Your task to perform on an android device: Go to Amazon Image 0: 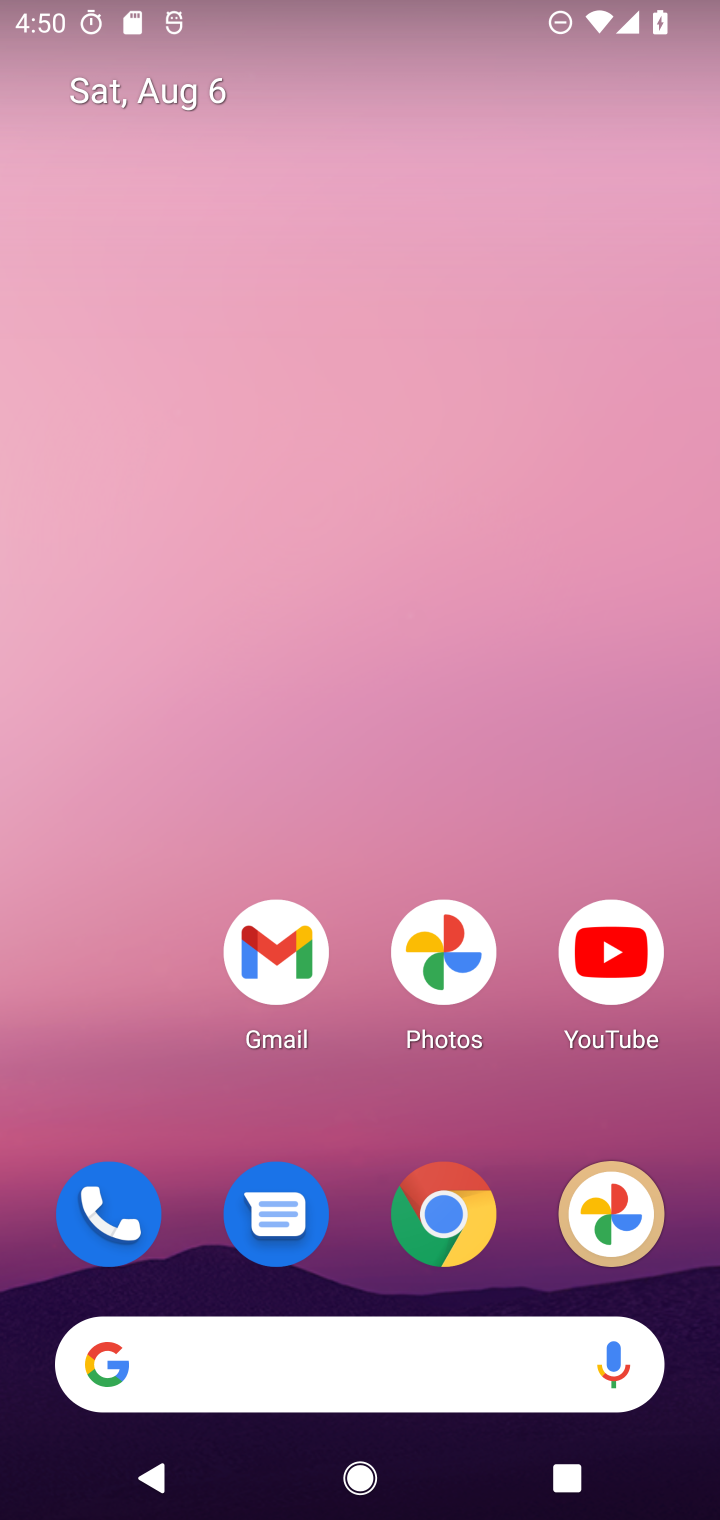
Step 0: click (450, 1201)
Your task to perform on an android device: Go to Amazon Image 1: 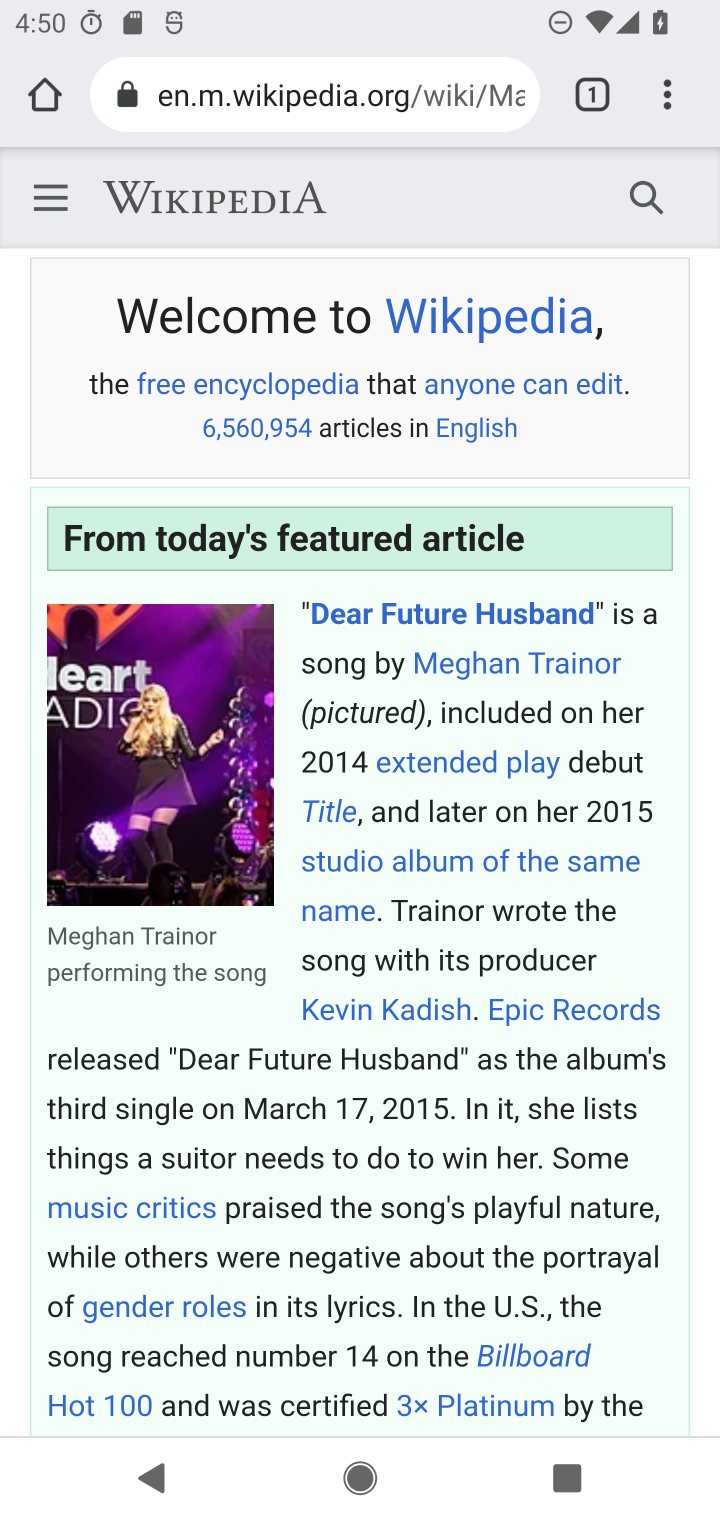
Step 1: click (263, 96)
Your task to perform on an android device: Go to Amazon Image 2: 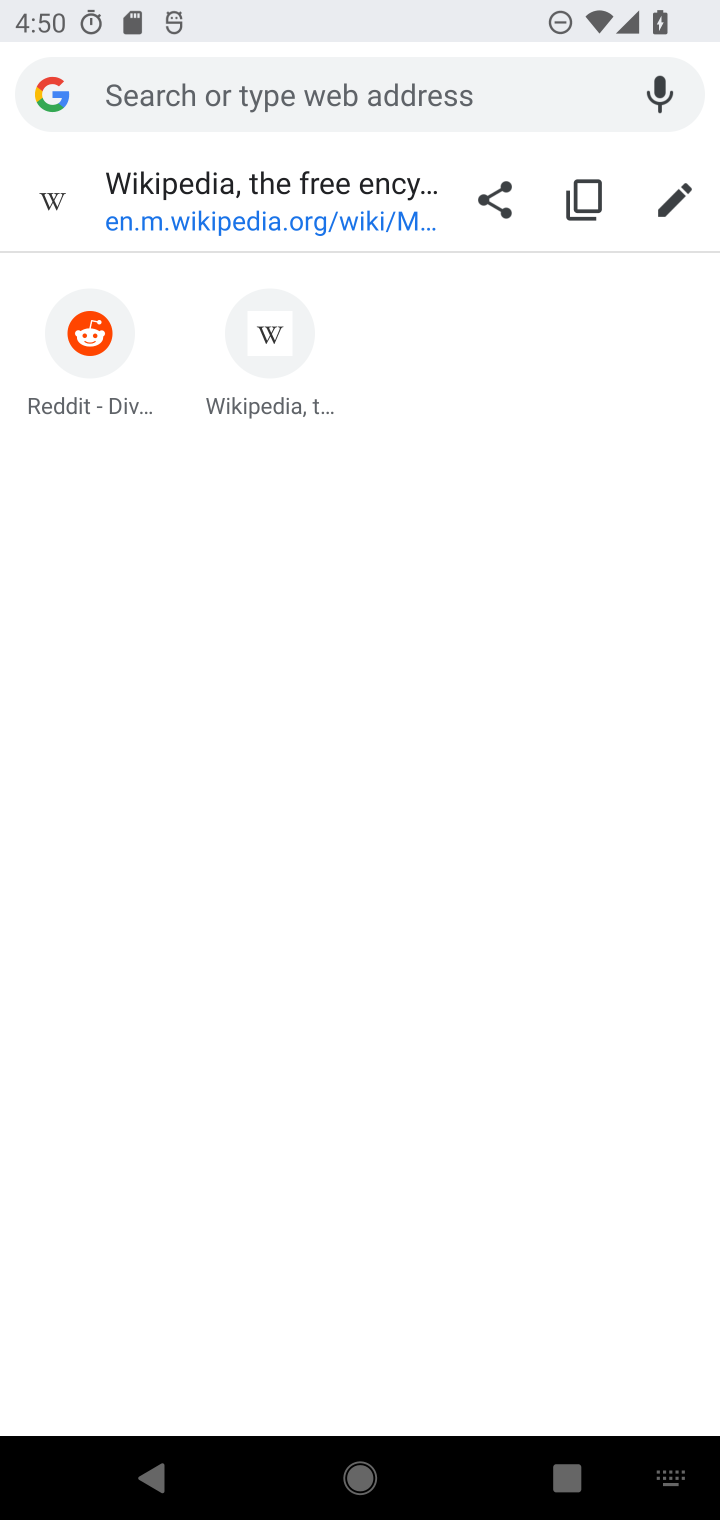
Step 2: type "www.amazon.com"
Your task to perform on an android device: Go to Amazon Image 3: 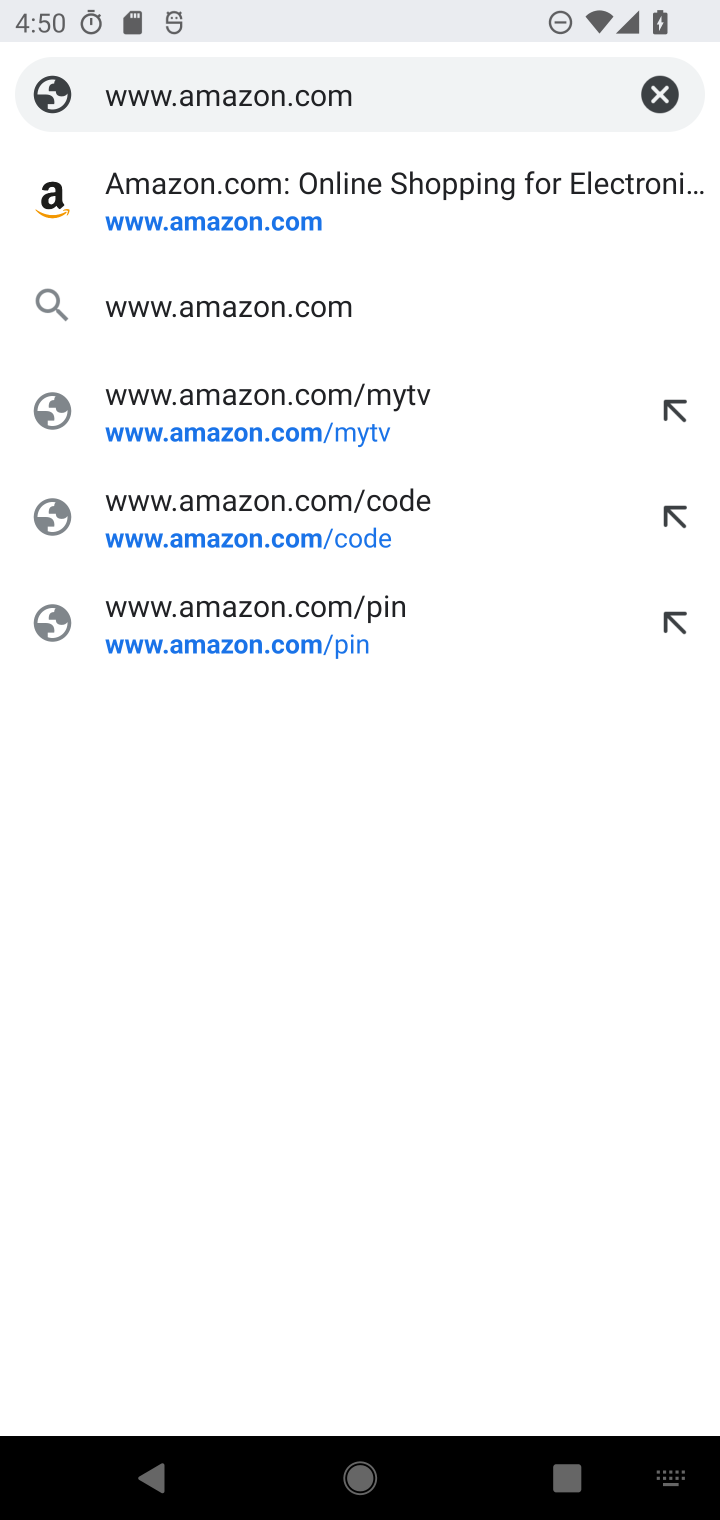
Step 3: click (297, 216)
Your task to perform on an android device: Go to Amazon Image 4: 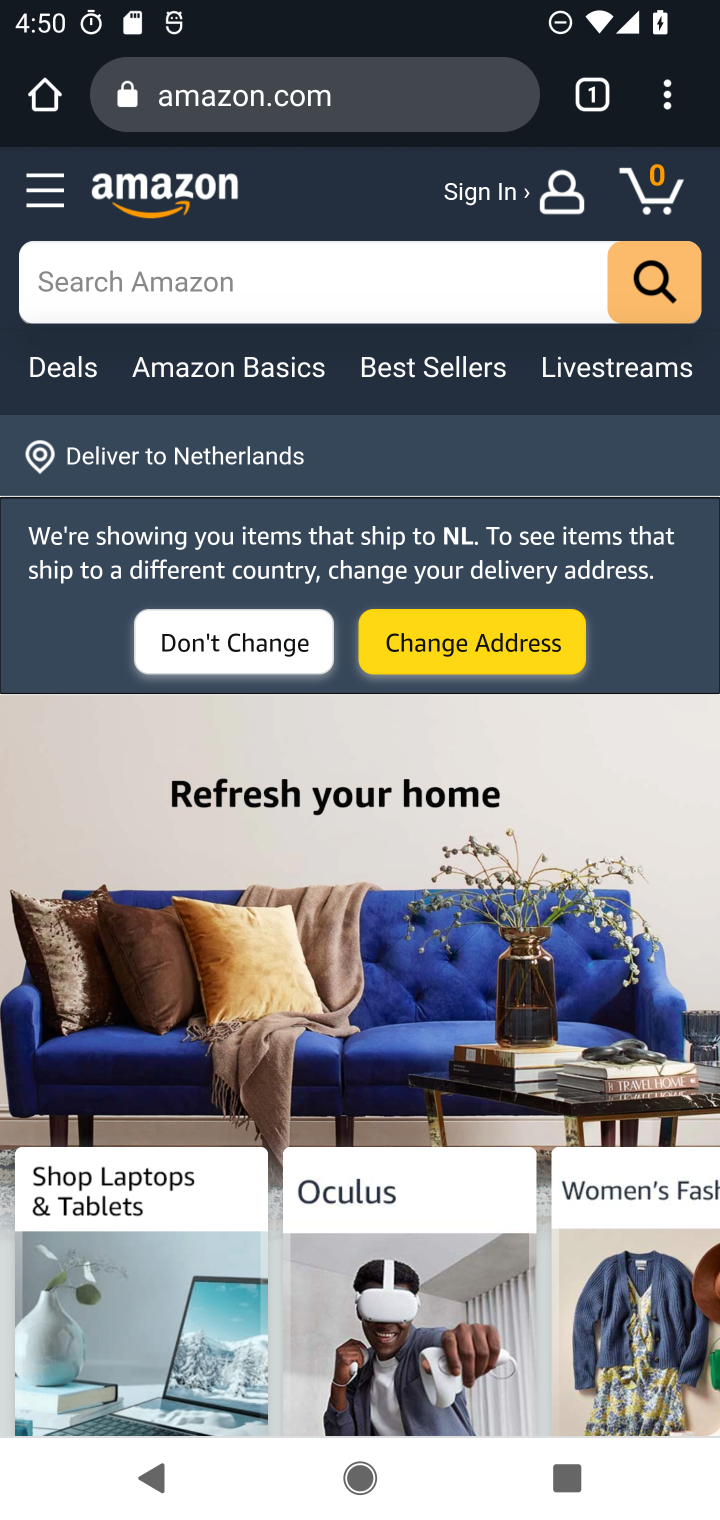
Step 4: task complete